Your task to perform on an android device: turn on sleep mode Image 0: 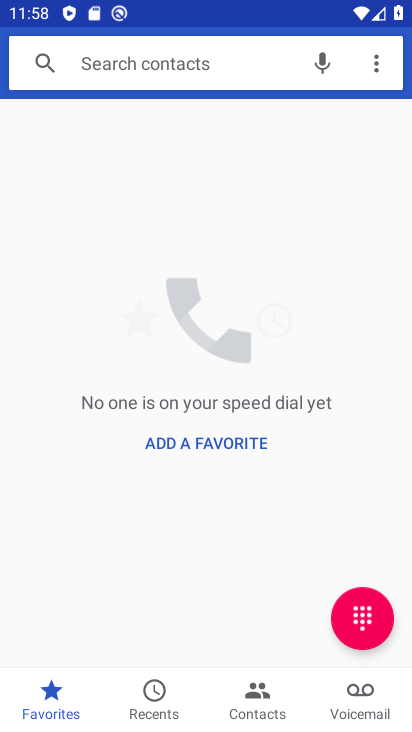
Step 0: press back button
Your task to perform on an android device: turn on sleep mode Image 1: 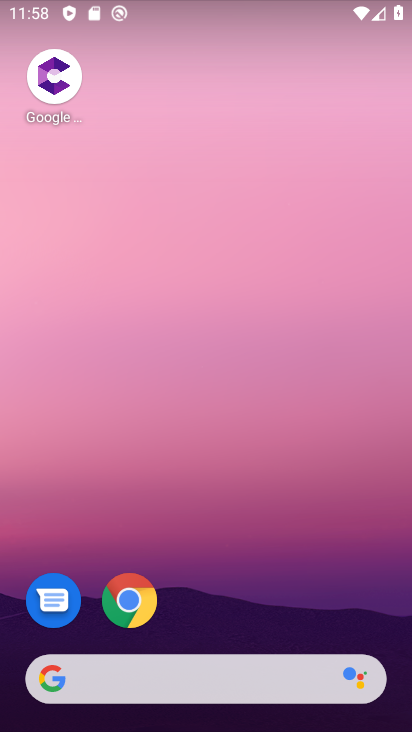
Step 1: drag from (264, 442) to (224, 13)
Your task to perform on an android device: turn on sleep mode Image 2: 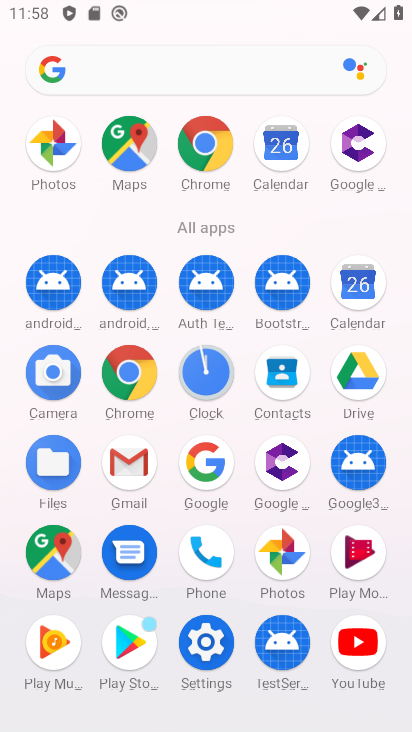
Step 2: drag from (0, 513) to (34, 181)
Your task to perform on an android device: turn on sleep mode Image 3: 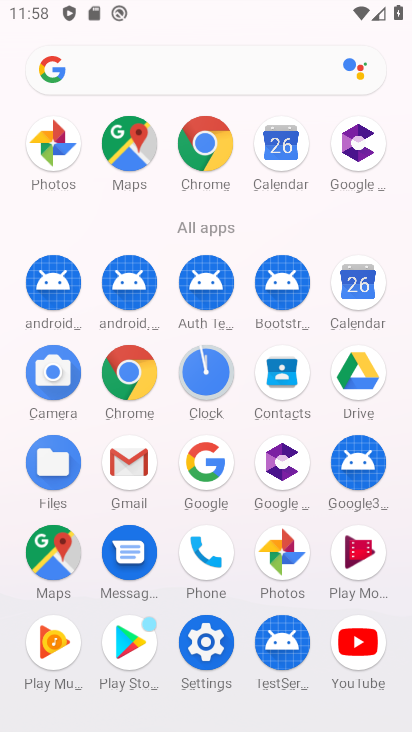
Step 3: click (204, 639)
Your task to perform on an android device: turn on sleep mode Image 4: 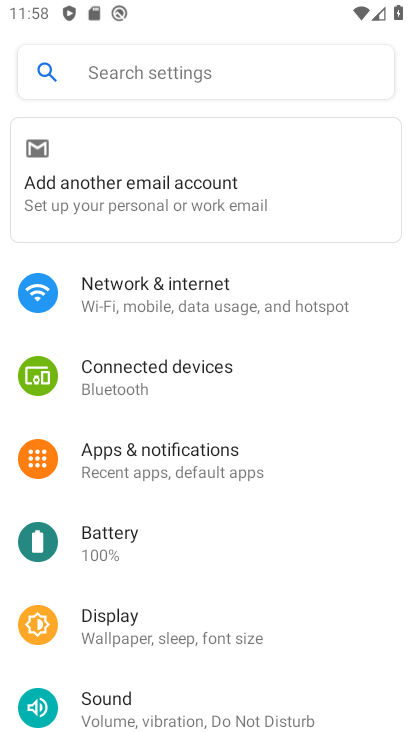
Step 4: click (214, 300)
Your task to perform on an android device: turn on sleep mode Image 5: 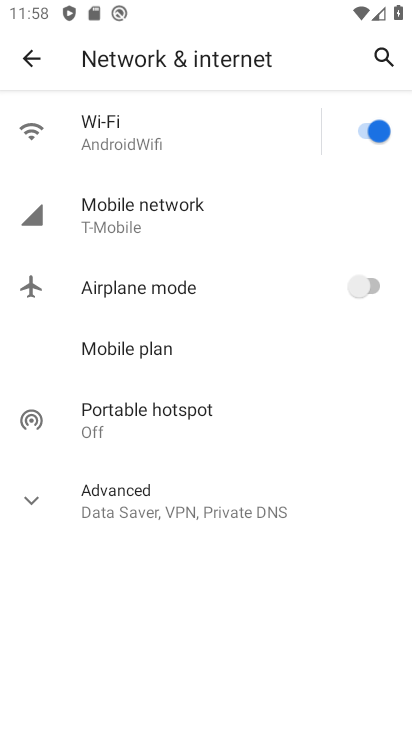
Step 5: click (38, 500)
Your task to perform on an android device: turn on sleep mode Image 6: 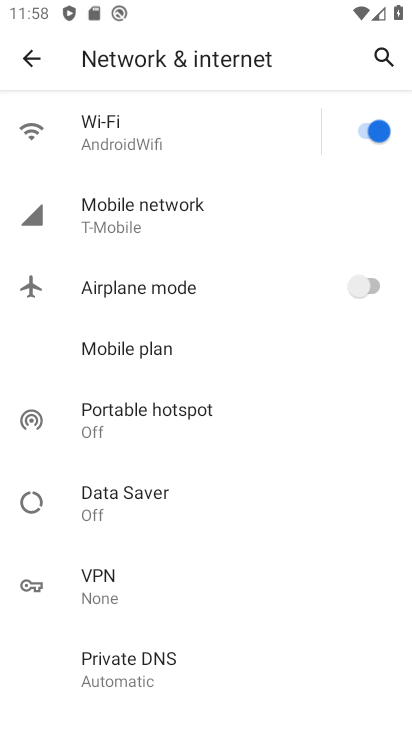
Step 6: click (28, 66)
Your task to perform on an android device: turn on sleep mode Image 7: 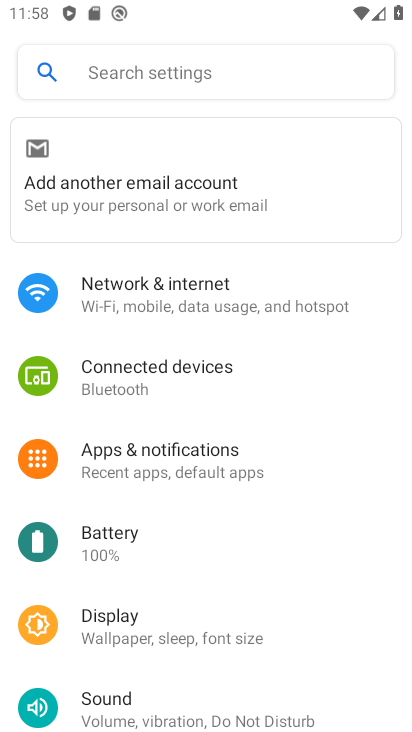
Step 7: drag from (223, 605) to (255, 306)
Your task to perform on an android device: turn on sleep mode Image 8: 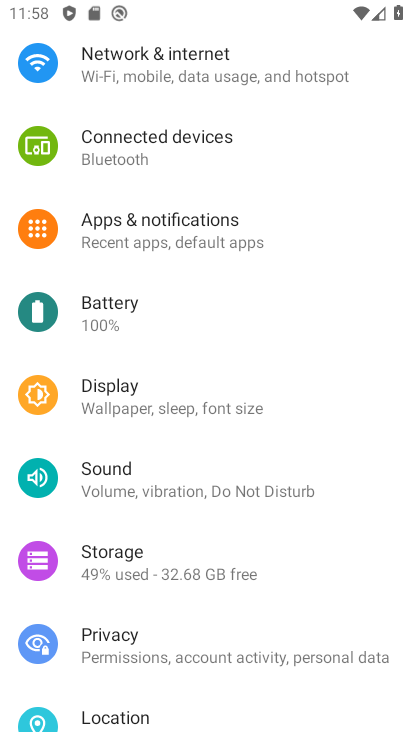
Step 8: click (166, 394)
Your task to perform on an android device: turn on sleep mode Image 9: 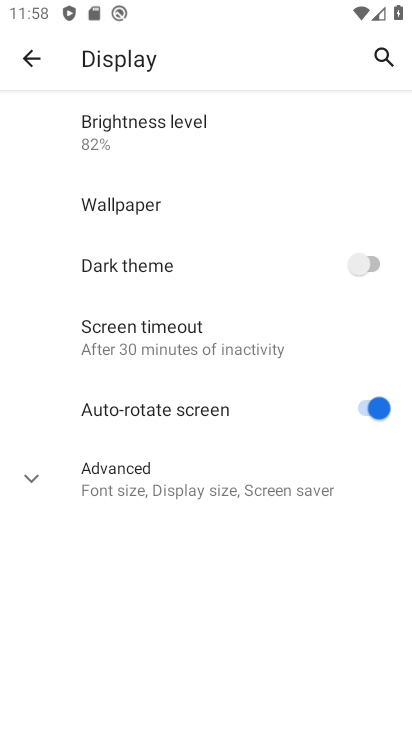
Step 9: click (63, 478)
Your task to perform on an android device: turn on sleep mode Image 10: 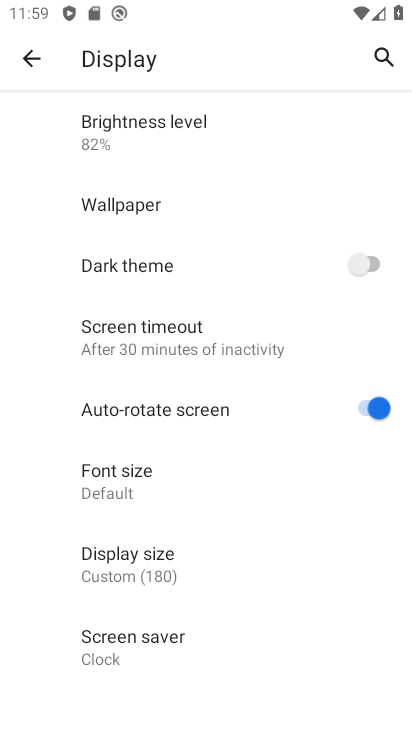
Step 10: task complete